Your task to perform on an android device: turn on data saver in the chrome app Image 0: 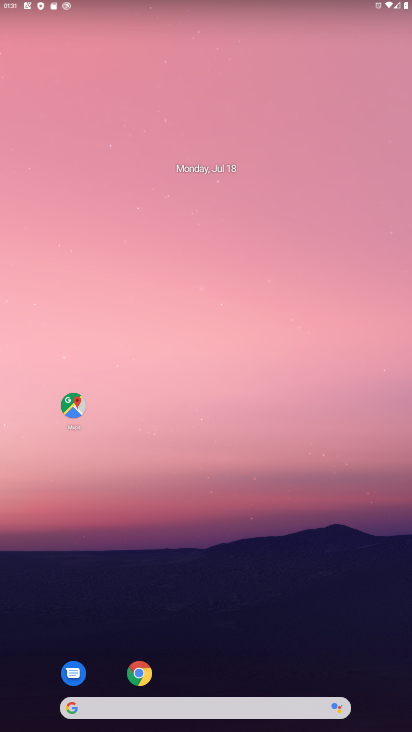
Step 0: press home button
Your task to perform on an android device: turn on data saver in the chrome app Image 1: 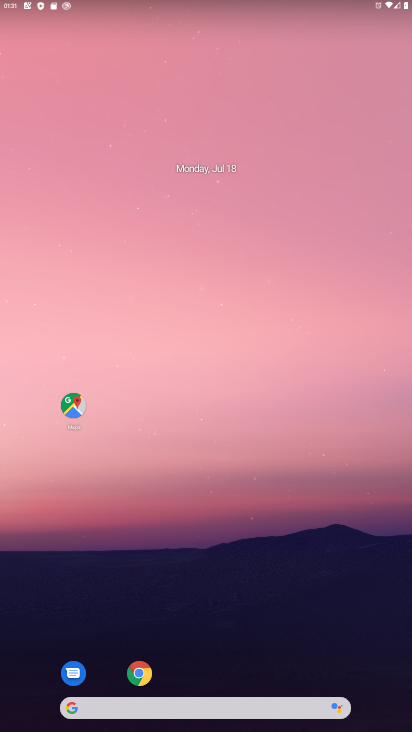
Step 1: click (138, 675)
Your task to perform on an android device: turn on data saver in the chrome app Image 2: 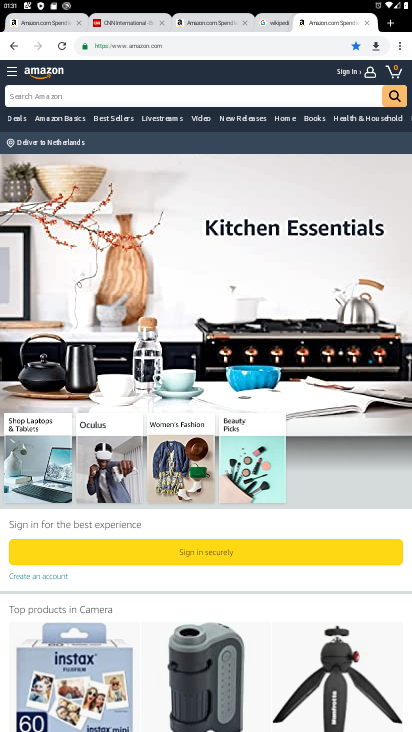
Step 2: click (398, 48)
Your task to perform on an android device: turn on data saver in the chrome app Image 3: 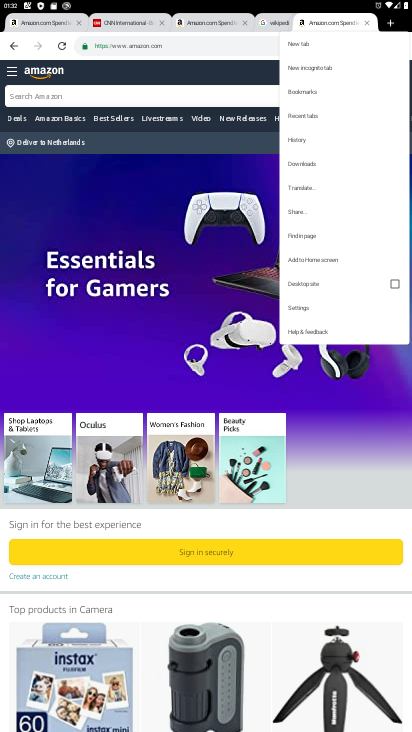
Step 3: click (305, 310)
Your task to perform on an android device: turn on data saver in the chrome app Image 4: 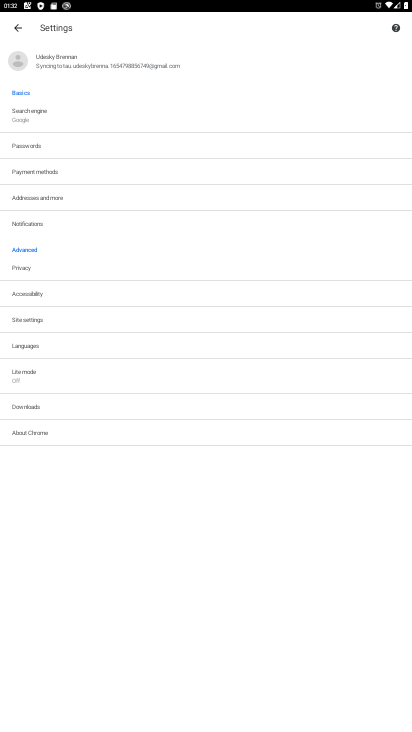
Step 4: click (101, 376)
Your task to perform on an android device: turn on data saver in the chrome app Image 5: 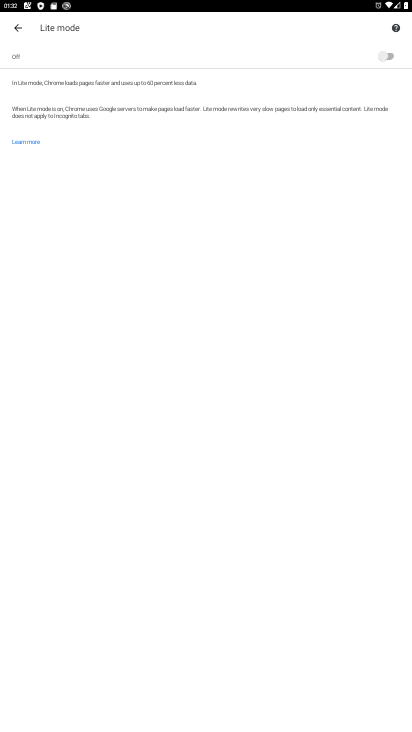
Step 5: click (377, 61)
Your task to perform on an android device: turn on data saver in the chrome app Image 6: 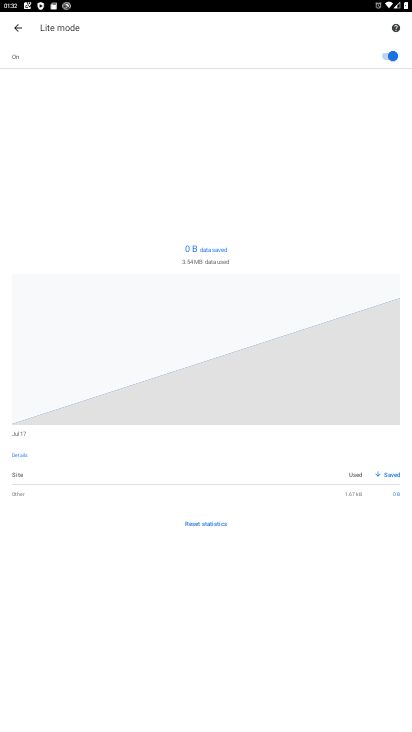
Step 6: task complete